Your task to perform on an android device: What's the weather? Image 0: 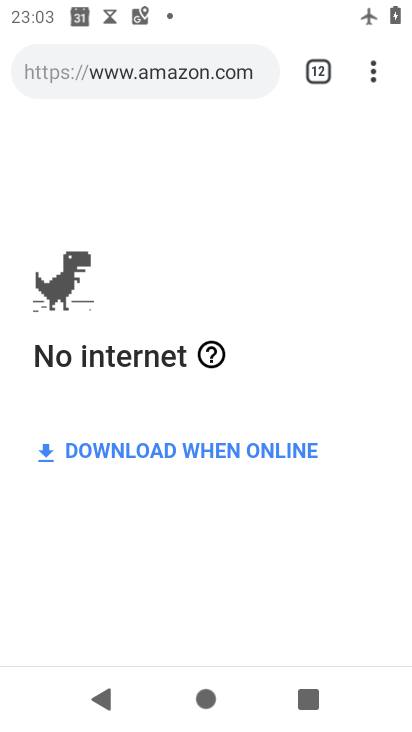
Step 0: click (379, 64)
Your task to perform on an android device: What's the weather? Image 1: 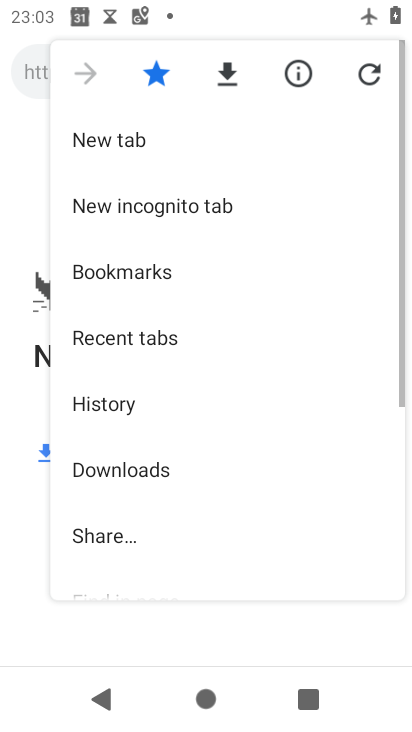
Step 1: click (129, 133)
Your task to perform on an android device: What's the weather? Image 2: 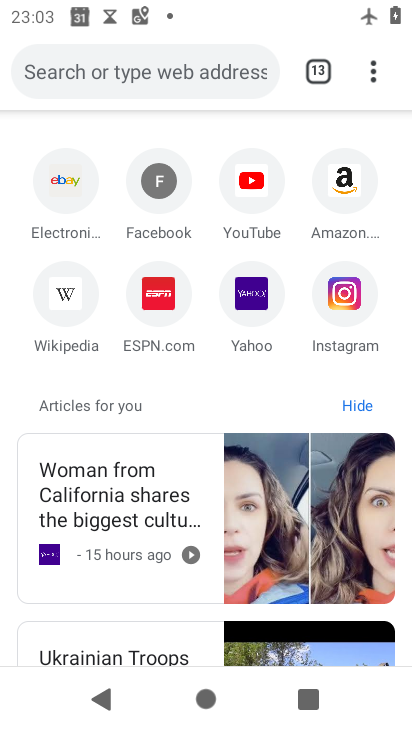
Step 2: click (170, 59)
Your task to perform on an android device: What's the weather? Image 3: 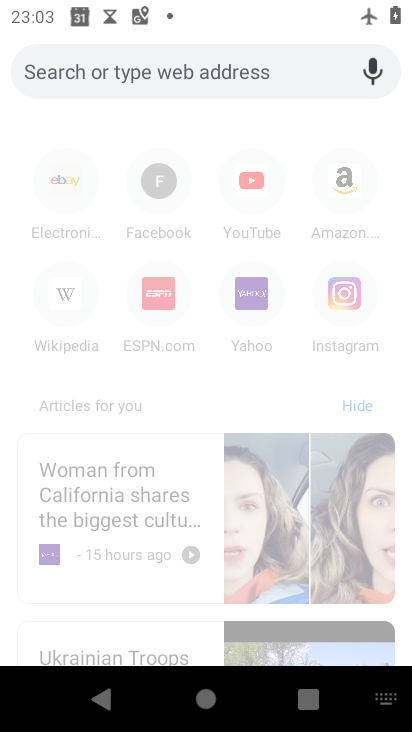
Step 3: type "What's the weather?"
Your task to perform on an android device: What's the weather? Image 4: 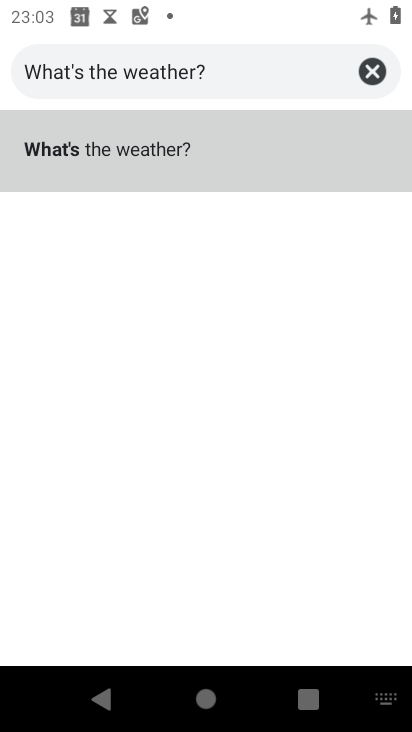
Step 4: click (150, 145)
Your task to perform on an android device: What's the weather? Image 5: 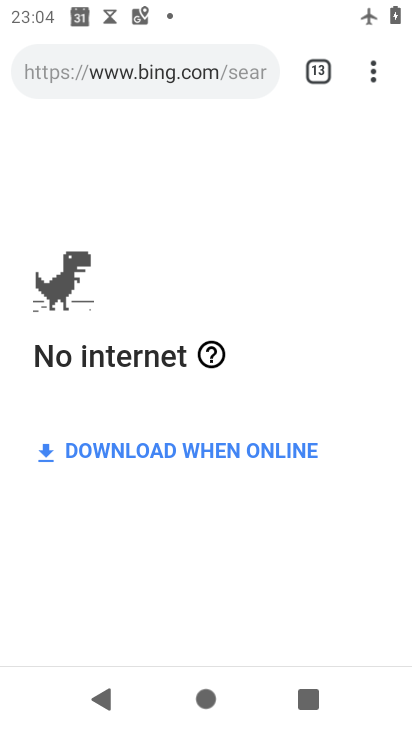
Step 5: task complete